Your task to perform on an android device: turn on showing notifications on the lock screen Image 0: 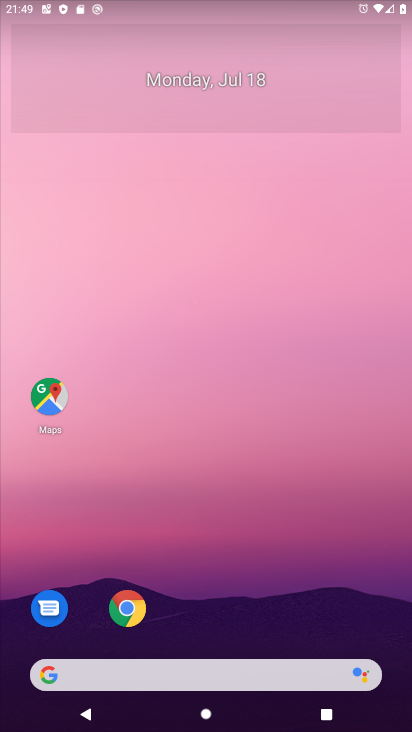
Step 0: drag from (29, 687) to (404, 155)
Your task to perform on an android device: turn on showing notifications on the lock screen Image 1: 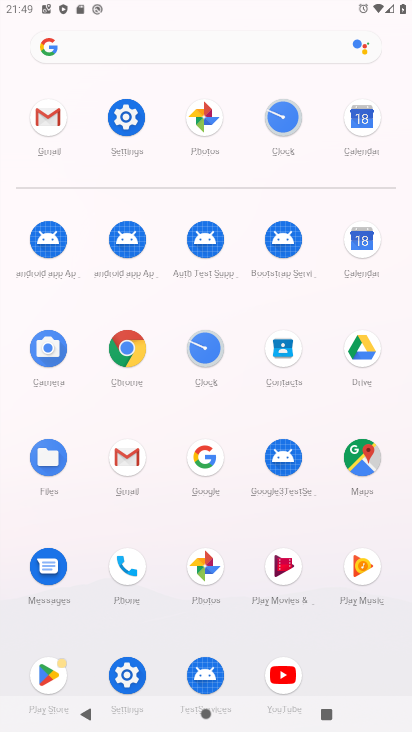
Step 1: click (118, 669)
Your task to perform on an android device: turn on showing notifications on the lock screen Image 2: 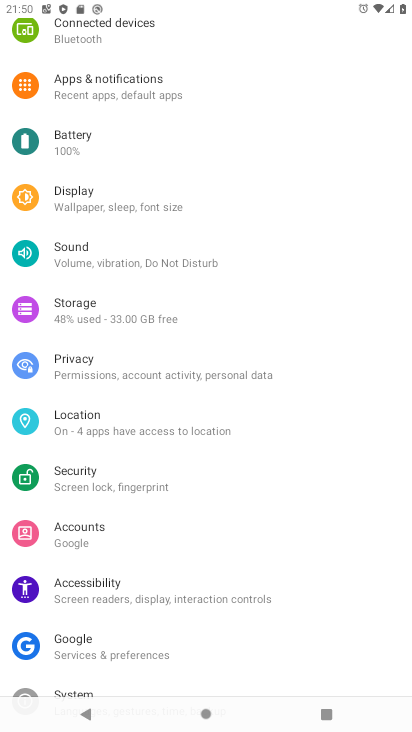
Step 2: click (107, 364)
Your task to perform on an android device: turn on showing notifications on the lock screen Image 3: 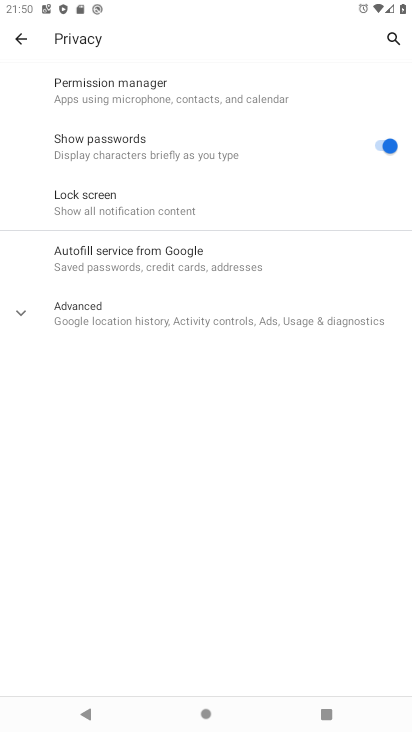
Step 3: click (108, 193)
Your task to perform on an android device: turn on showing notifications on the lock screen Image 4: 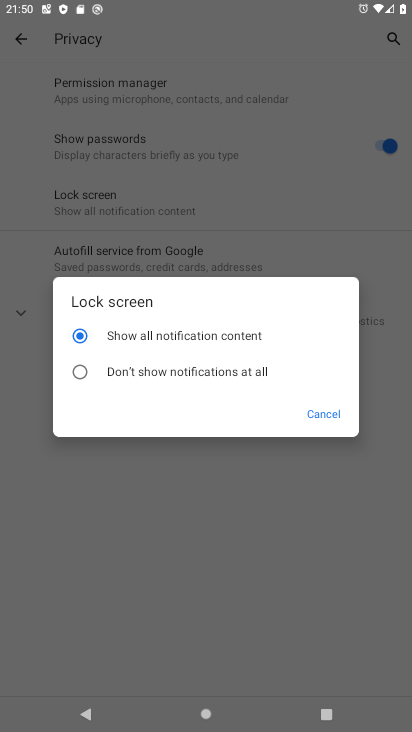
Step 4: task complete